Your task to perform on an android device: see tabs open on other devices in the chrome app Image 0: 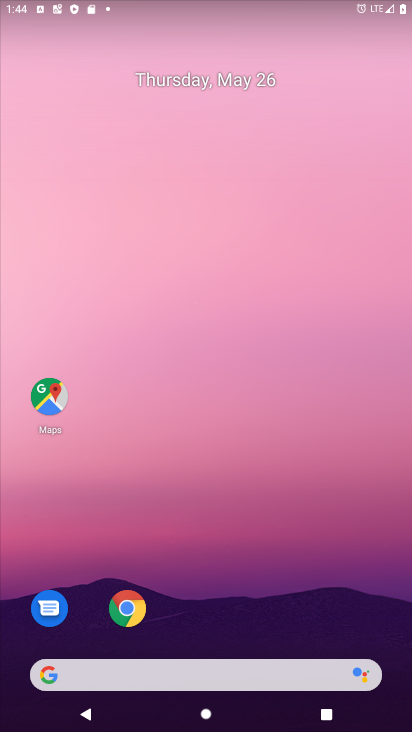
Step 0: click (128, 607)
Your task to perform on an android device: see tabs open on other devices in the chrome app Image 1: 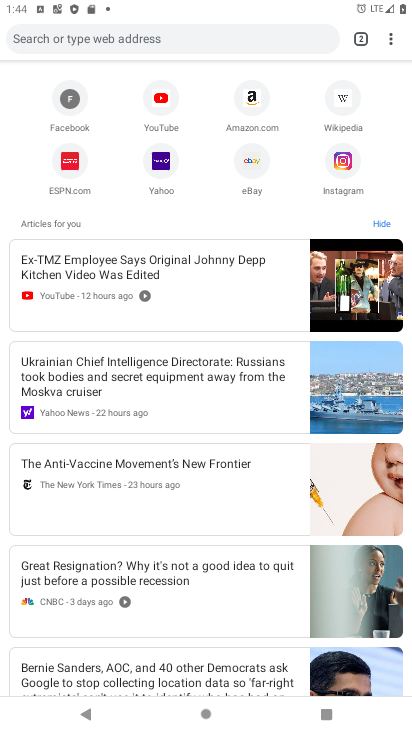
Step 1: click (395, 45)
Your task to perform on an android device: see tabs open on other devices in the chrome app Image 2: 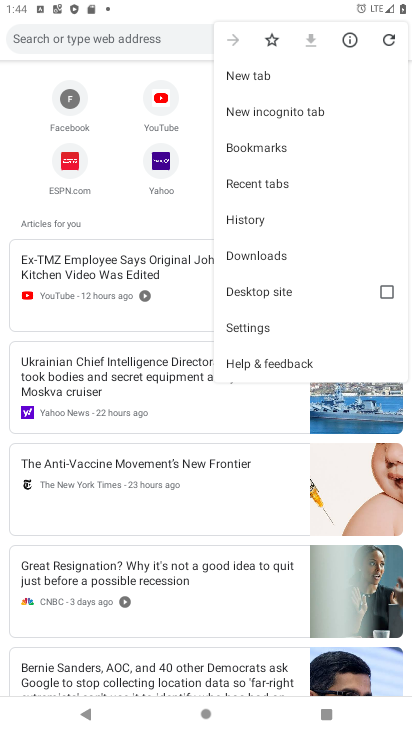
Step 2: click (251, 183)
Your task to perform on an android device: see tabs open on other devices in the chrome app Image 3: 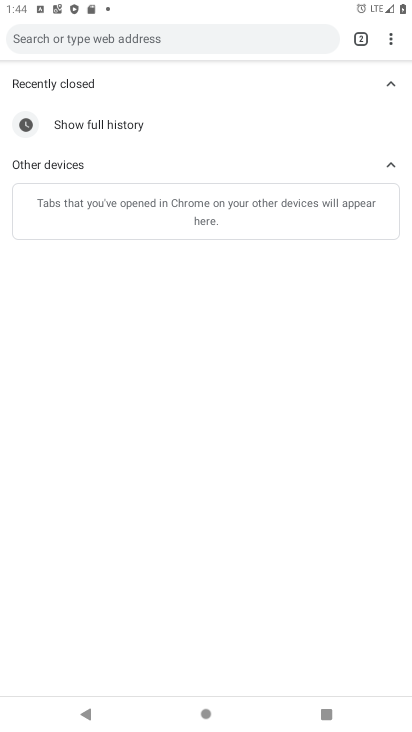
Step 3: task complete